Your task to perform on an android device: Open calendar and show me the second week of next month Image 0: 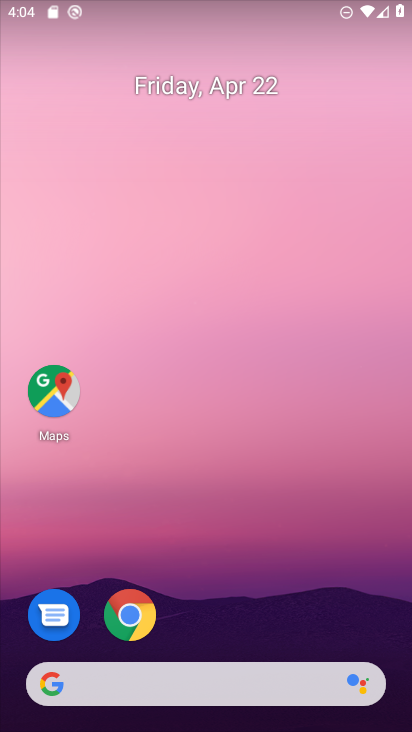
Step 0: drag from (292, 616) to (308, 100)
Your task to perform on an android device: Open calendar and show me the second week of next month Image 1: 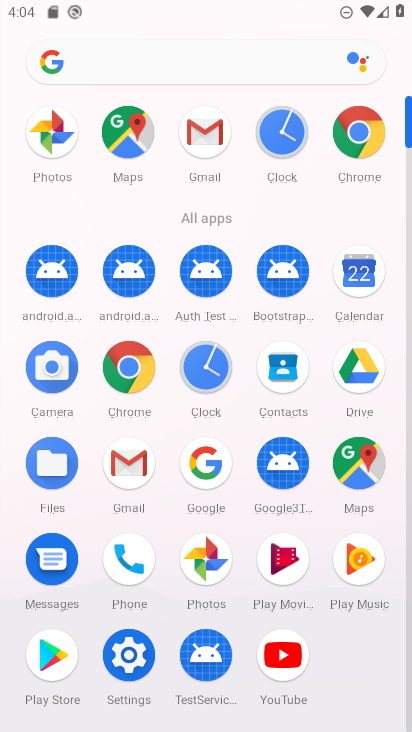
Step 1: click (359, 265)
Your task to perform on an android device: Open calendar and show me the second week of next month Image 2: 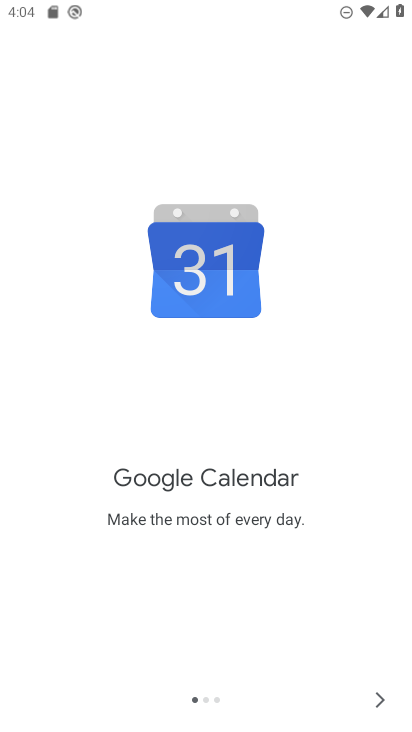
Step 2: click (378, 691)
Your task to perform on an android device: Open calendar and show me the second week of next month Image 3: 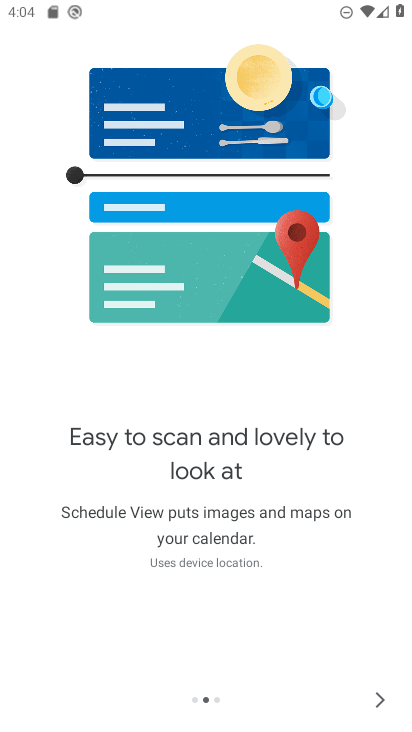
Step 3: click (378, 691)
Your task to perform on an android device: Open calendar and show me the second week of next month Image 4: 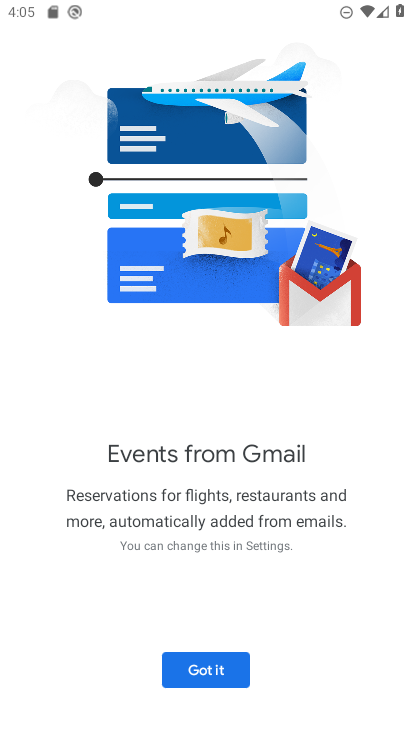
Step 4: click (216, 680)
Your task to perform on an android device: Open calendar and show me the second week of next month Image 5: 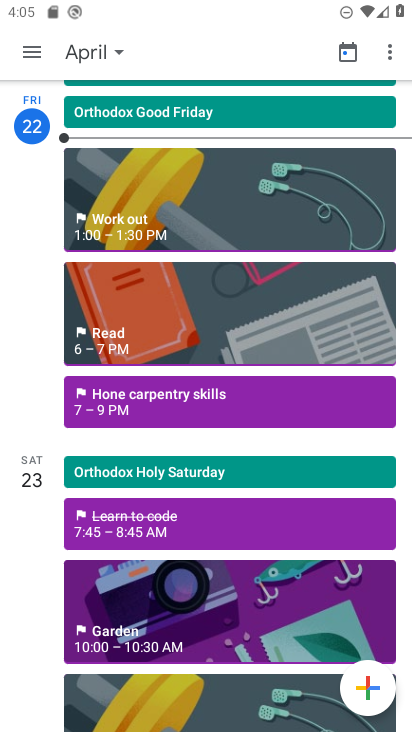
Step 5: click (82, 55)
Your task to perform on an android device: Open calendar and show me the second week of next month Image 6: 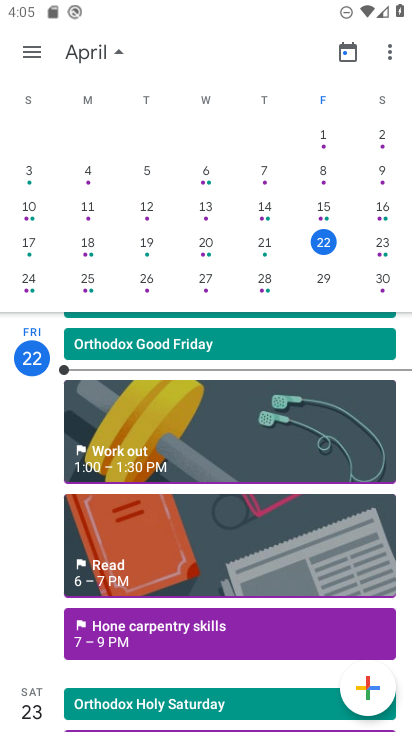
Step 6: drag from (368, 205) to (43, 197)
Your task to perform on an android device: Open calendar and show me the second week of next month Image 7: 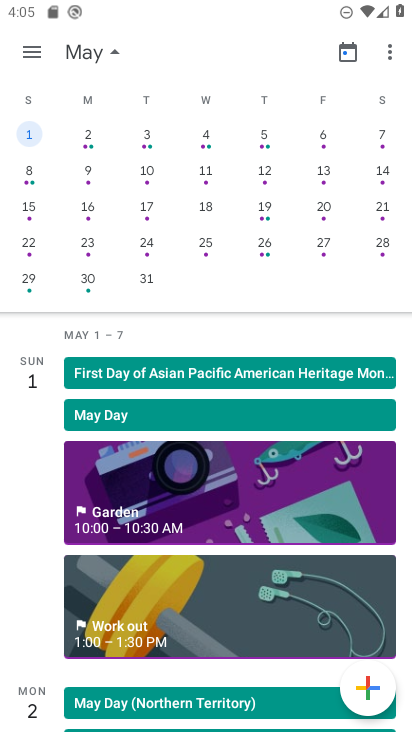
Step 7: click (144, 175)
Your task to perform on an android device: Open calendar and show me the second week of next month Image 8: 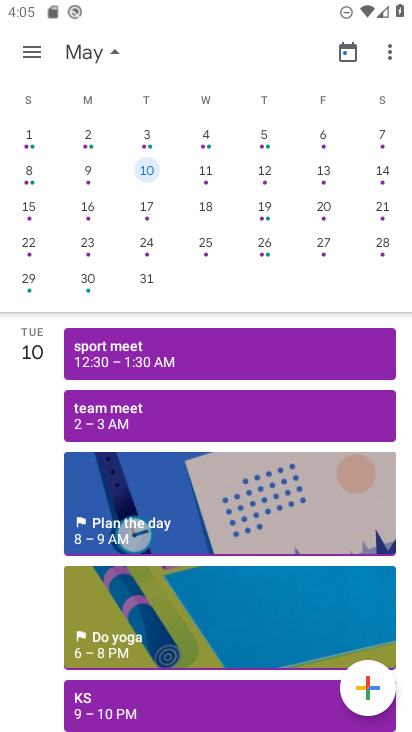
Step 8: task complete